Your task to perform on an android device: open app "Messenger Lite" (install if not already installed) and enter user name: "cataclysmic@outlook.com" and password: "victoriously" Image 0: 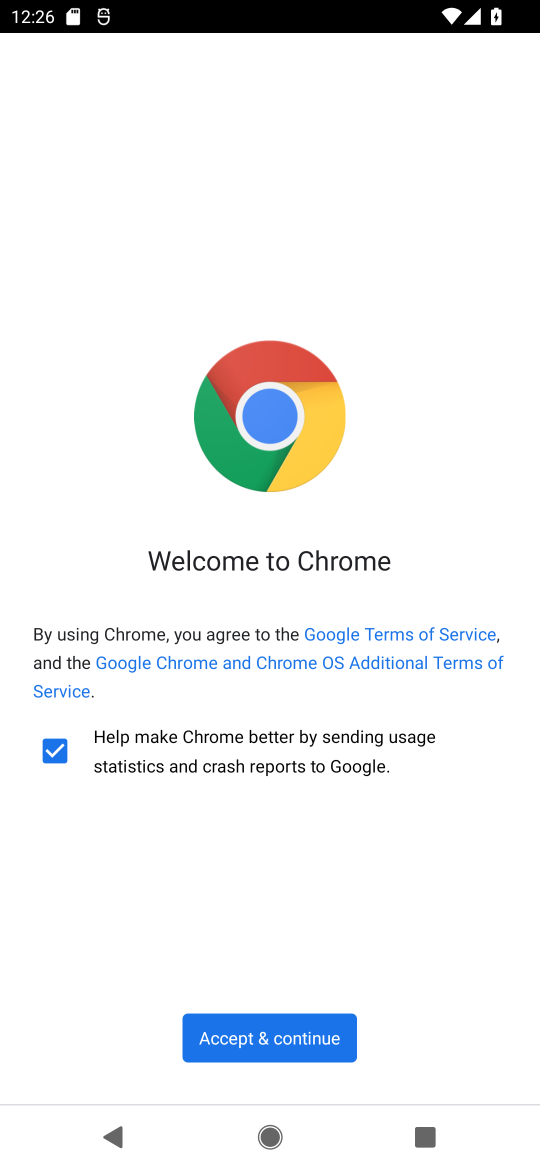
Step 0: press back button
Your task to perform on an android device: open app "Messenger Lite" (install if not already installed) and enter user name: "cataclysmic@outlook.com" and password: "victoriously" Image 1: 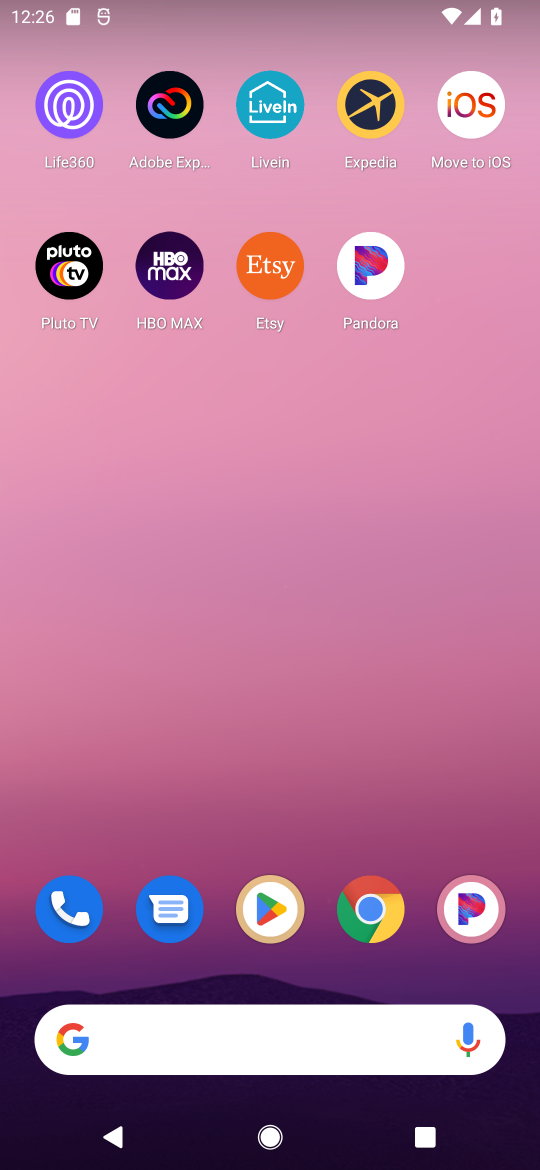
Step 1: click (263, 933)
Your task to perform on an android device: open app "Messenger Lite" (install if not already installed) and enter user name: "cataclysmic@outlook.com" and password: "victoriously" Image 2: 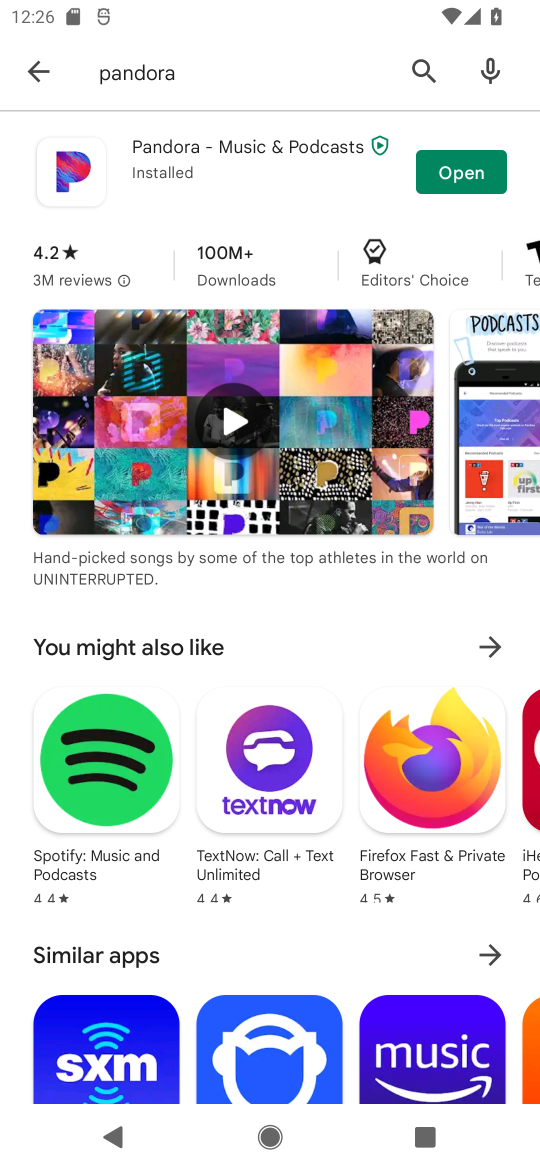
Step 2: click (433, 67)
Your task to perform on an android device: open app "Messenger Lite" (install if not already installed) and enter user name: "cataclysmic@outlook.com" and password: "victoriously" Image 3: 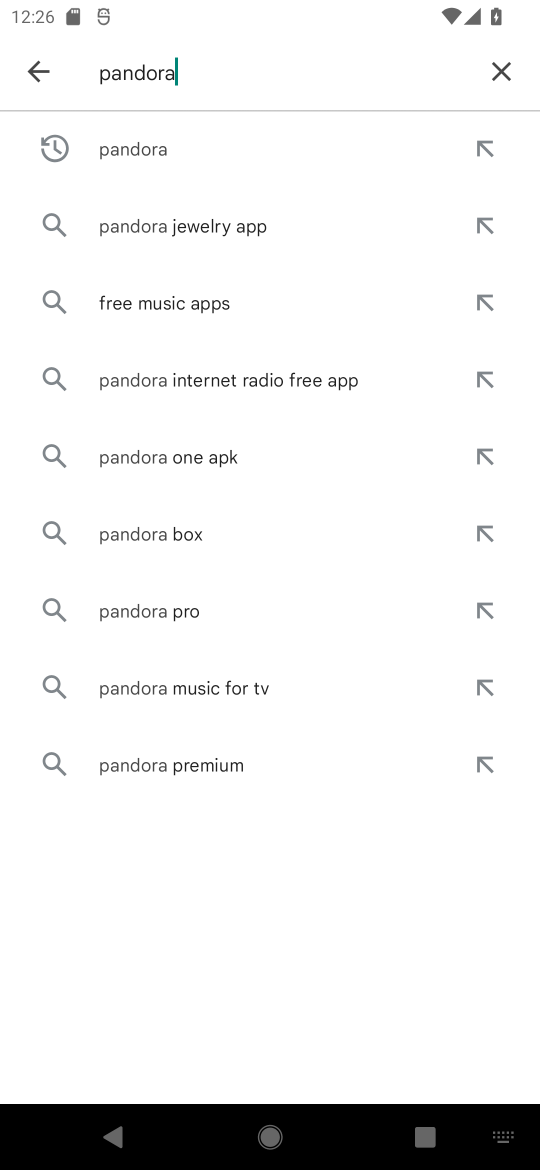
Step 3: click (504, 73)
Your task to perform on an android device: open app "Messenger Lite" (install if not already installed) and enter user name: "cataclysmic@outlook.com" and password: "victoriously" Image 4: 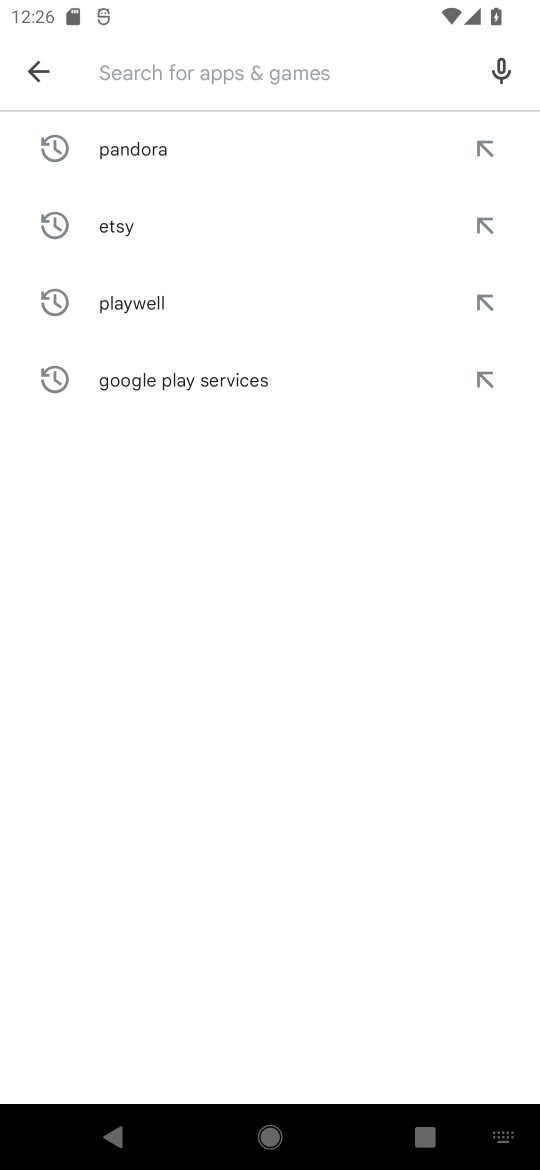
Step 4: click (215, 84)
Your task to perform on an android device: open app "Messenger Lite" (install if not already installed) and enter user name: "cataclysmic@outlook.com" and password: "victoriously" Image 5: 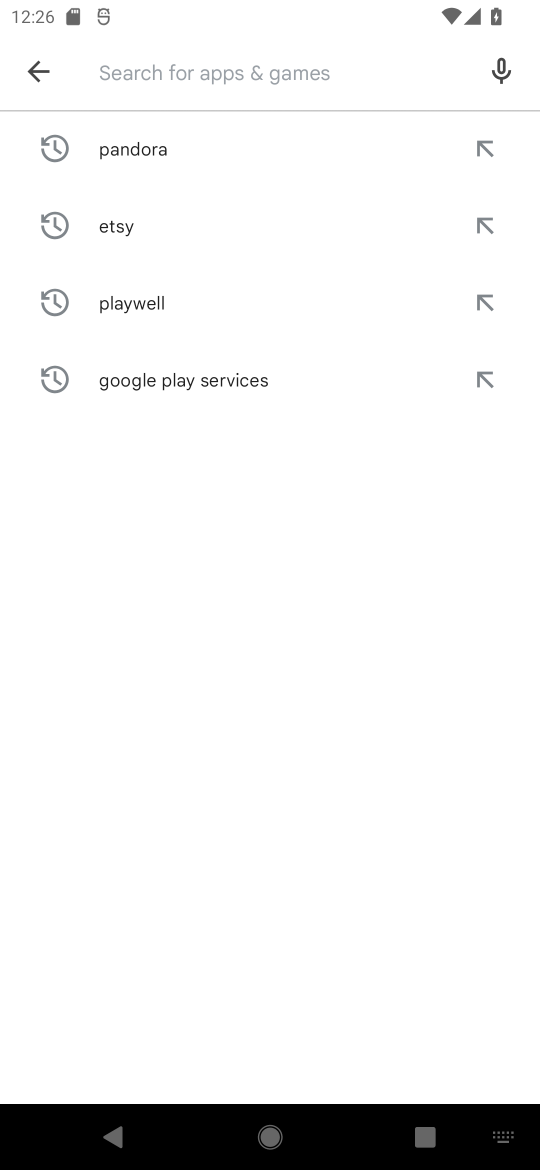
Step 5: type "messenger lite"
Your task to perform on an android device: open app "Messenger Lite" (install if not already installed) and enter user name: "cataclysmic@outlook.com" and password: "victoriously" Image 6: 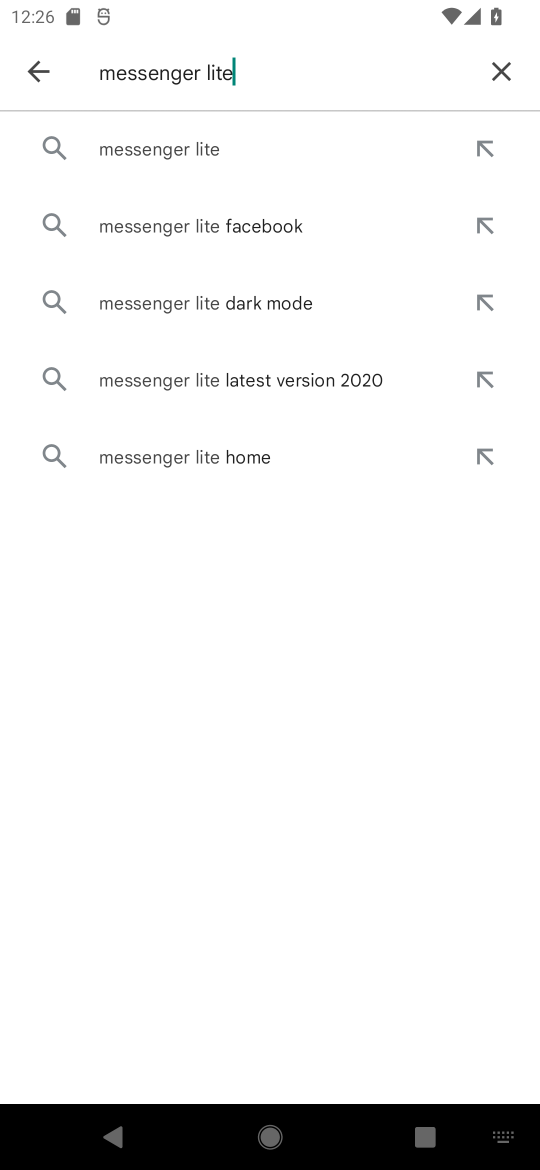
Step 6: click (169, 147)
Your task to perform on an android device: open app "Messenger Lite" (install if not already installed) and enter user name: "cataclysmic@outlook.com" and password: "victoriously" Image 7: 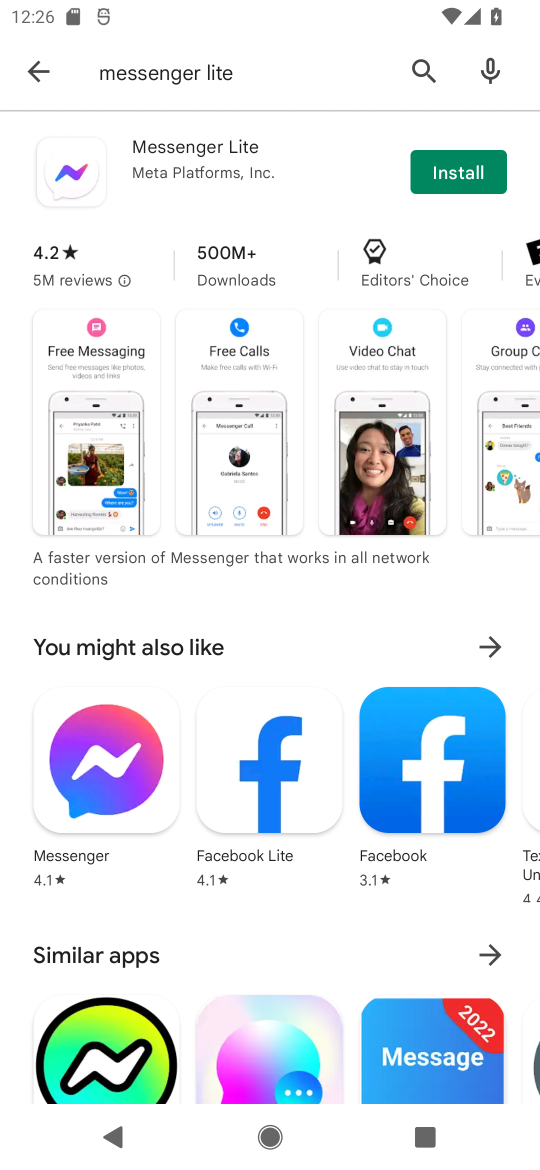
Step 7: click (466, 176)
Your task to perform on an android device: open app "Messenger Lite" (install if not already installed) and enter user name: "cataclysmic@outlook.com" and password: "victoriously" Image 8: 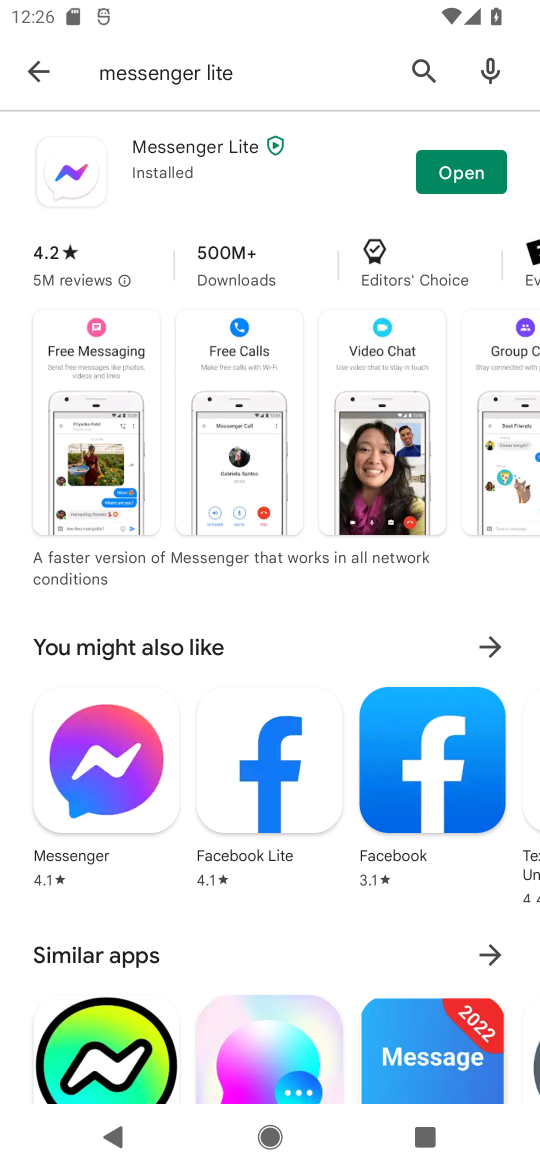
Step 8: click (451, 169)
Your task to perform on an android device: open app "Messenger Lite" (install if not already installed) and enter user name: "cataclysmic@outlook.com" and password: "victoriously" Image 9: 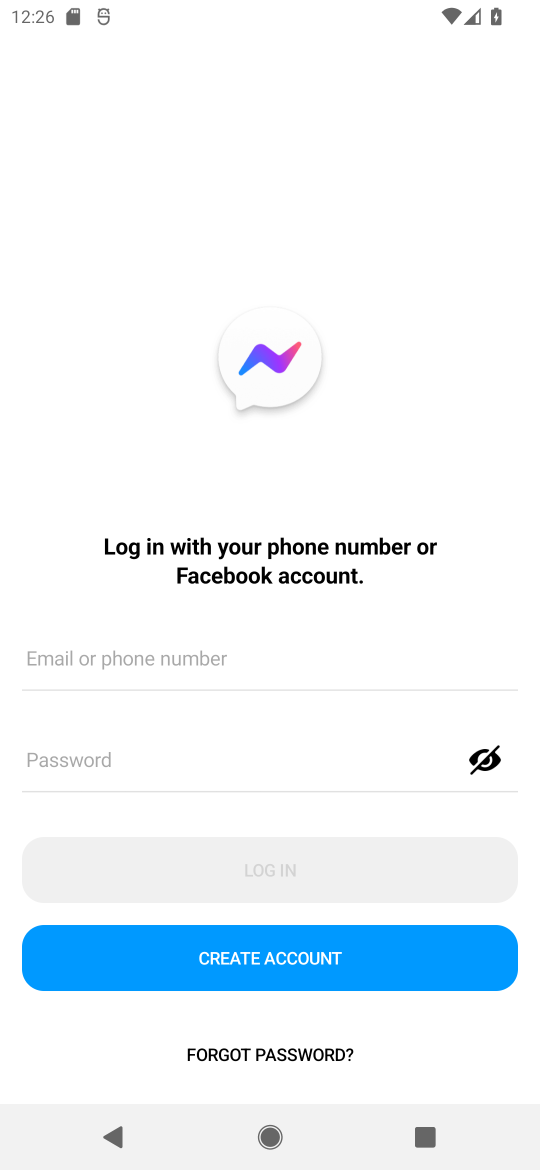
Step 9: click (101, 658)
Your task to perform on an android device: open app "Messenger Lite" (install if not already installed) and enter user name: "cataclysmic@outlook.com" and password: "victoriously" Image 10: 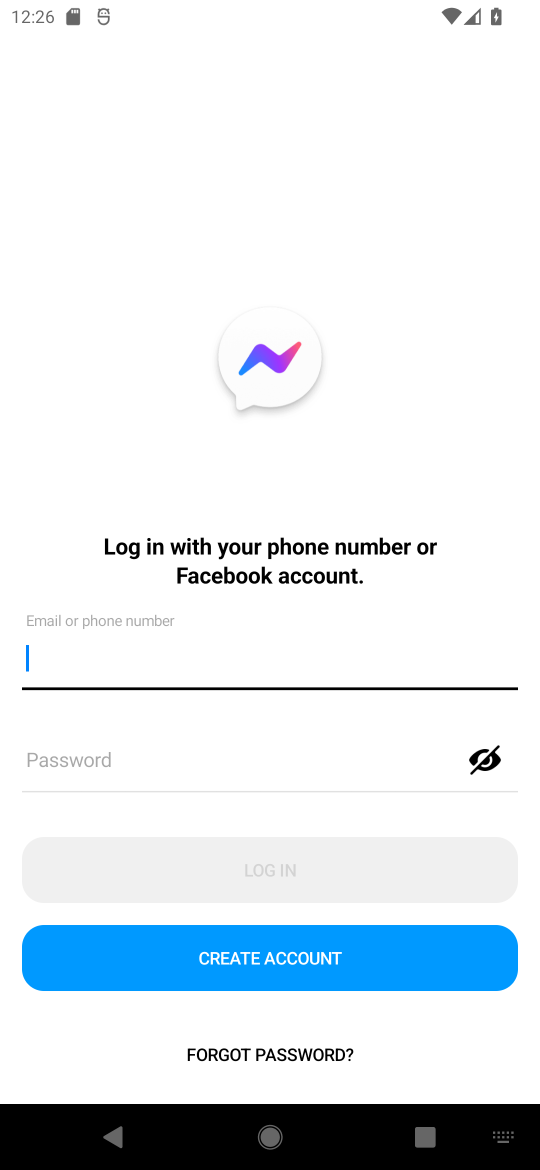
Step 10: click (111, 655)
Your task to perform on an android device: open app "Messenger Lite" (install if not already installed) and enter user name: "cataclysmic@outlook.com" and password: "victoriously" Image 11: 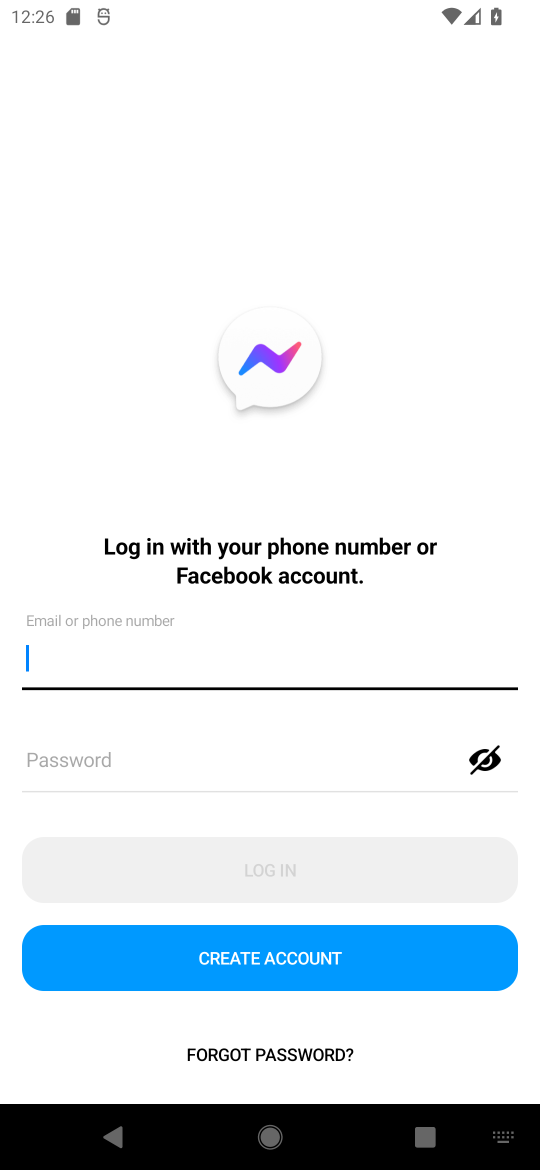
Step 11: type "cataclysmic@outlook.com"
Your task to perform on an android device: open app "Messenger Lite" (install if not already installed) and enter user name: "cataclysmic@outlook.com" and password: "victoriously" Image 12: 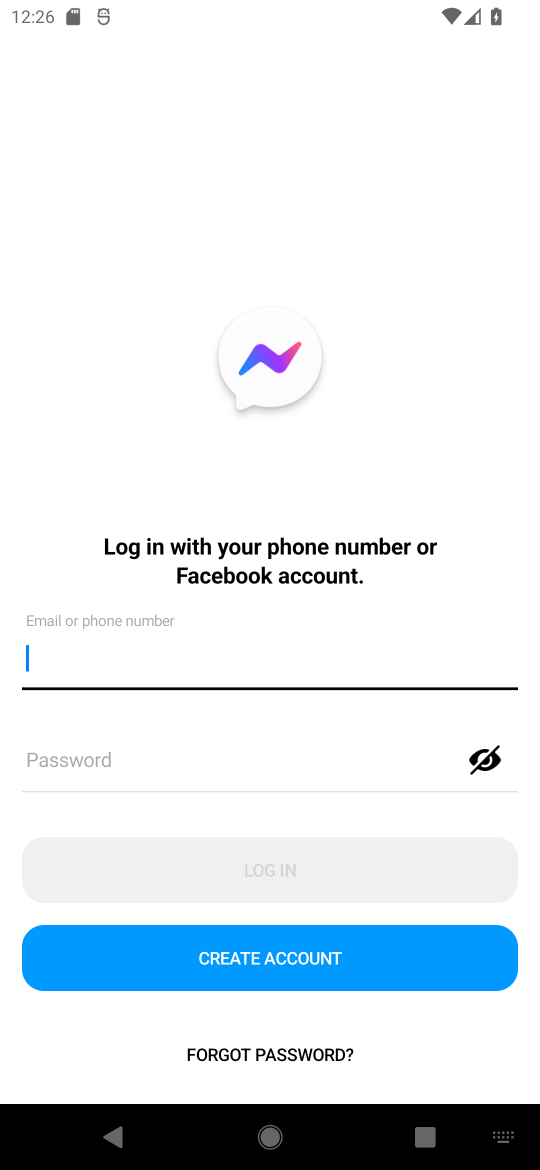
Step 12: click (67, 752)
Your task to perform on an android device: open app "Messenger Lite" (install if not already installed) and enter user name: "cataclysmic@outlook.com" and password: "victoriously" Image 13: 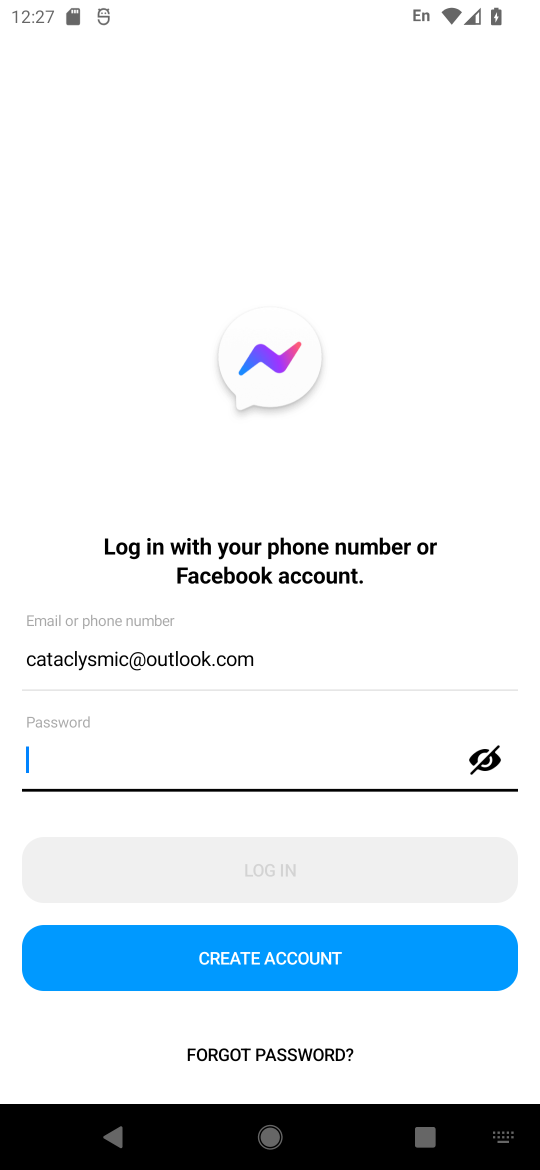
Step 13: click (18, 748)
Your task to perform on an android device: open app "Messenger Lite" (install if not already installed) and enter user name: "cataclysmic@outlook.com" and password: "victoriously" Image 14: 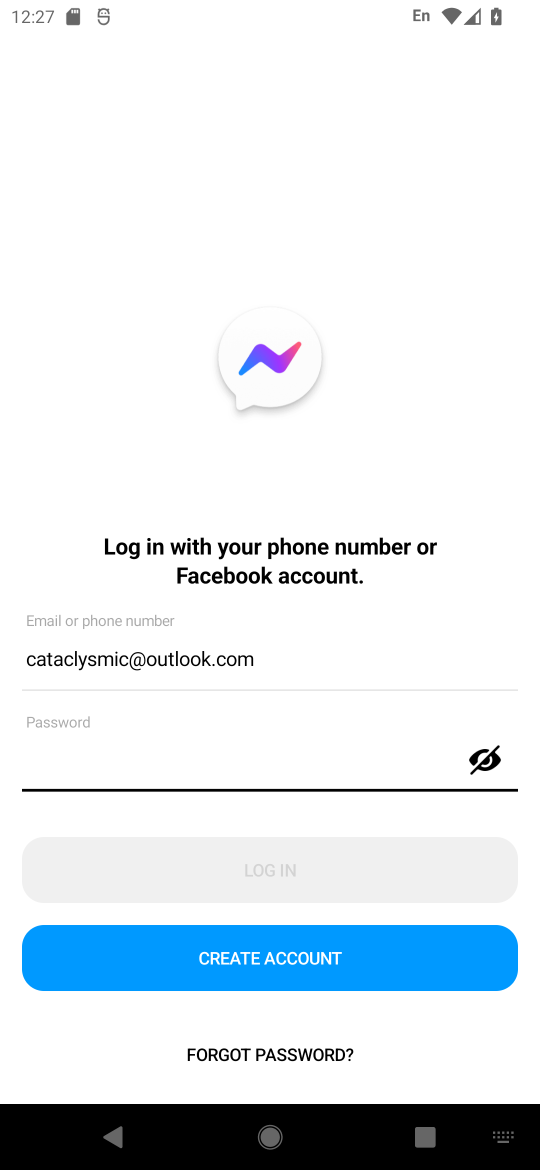
Step 14: type "victoriously"
Your task to perform on an android device: open app "Messenger Lite" (install if not already installed) and enter user name: "cataclysmic@outlook.com" and password: "victoriously" Image 15: 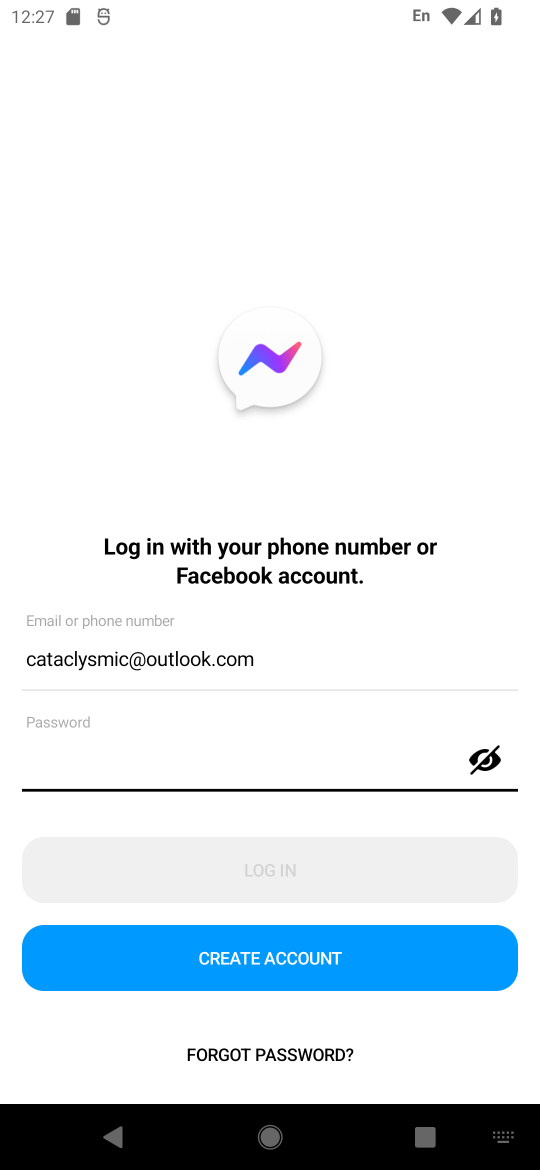
Step 15: click (59, 838)
Your task to perform on an android device: open app "Messenger Lite" (install if not already installed) and enter user name: "cataclysmic@outlook.com" and password: "victoriously" Image 16: 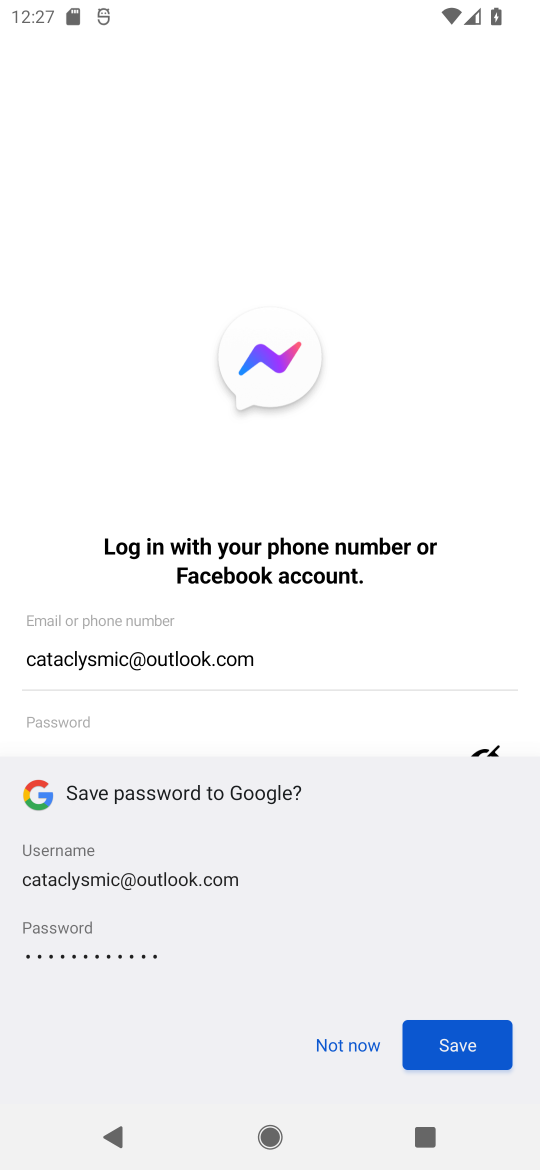
Step 16: click (331, 1038)
Your task to perform on an android device: open app "Messenger Lite" (install if not already installed) and enter user name: "cataclysmic@outlook.com" and password: "victoriously" Image 17: 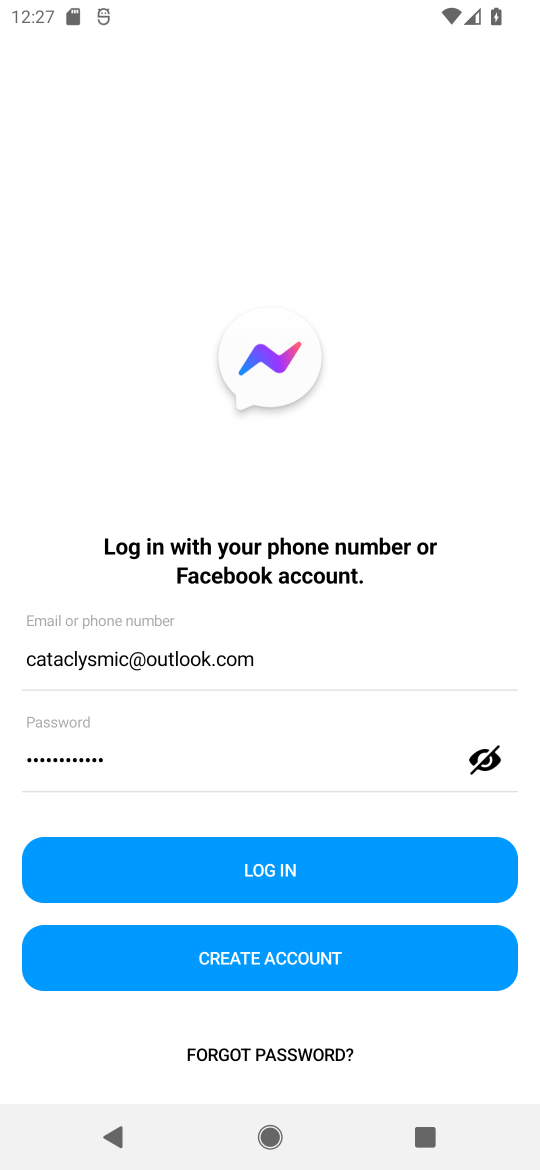
Step 17: task complete